Your task to perform on an android device: allow cookies in the chrome app Image 0: 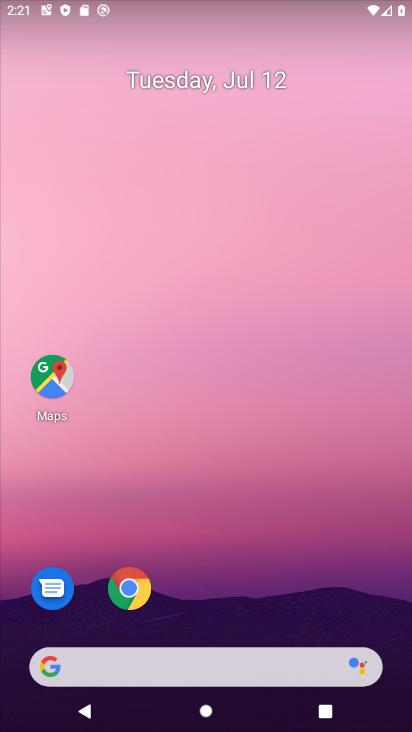
Step 0: click (126, 591)
Your task to perform on an android device: allow cookies in the chrome app Image 1: 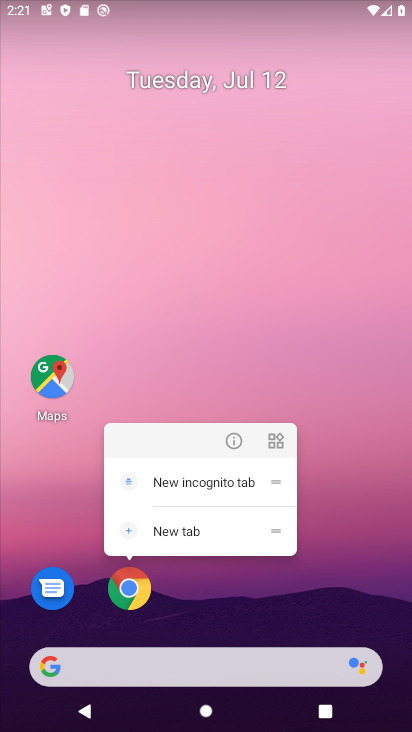
Step 1: click (141, 597)
Your task to perform on an android device: allow cookies in the chrome app Image 2: 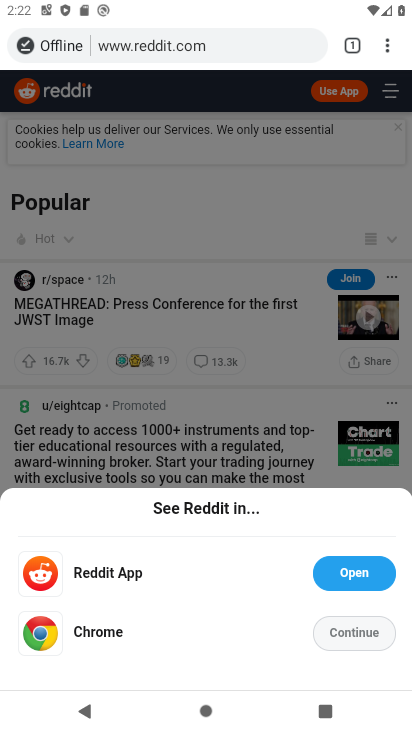
Step 2: drag from (385, 54) to (273, 511)
Your task to perform on an android device: allow cookies in the chrome app Image 3: 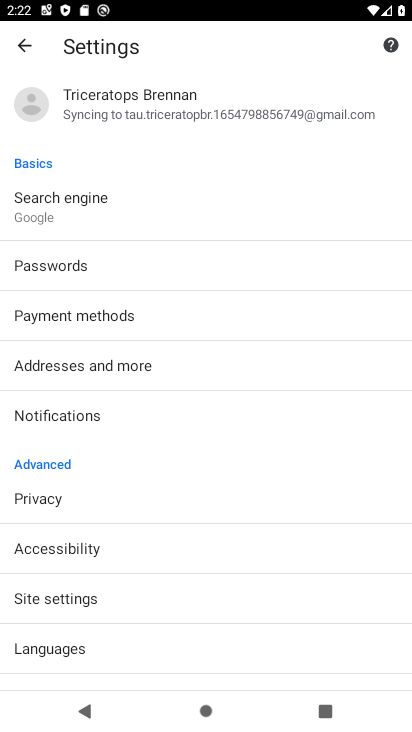
Step 3: click (73, 606)
Your task to perform on an android device: allow cookies in the chrome app Image 4: 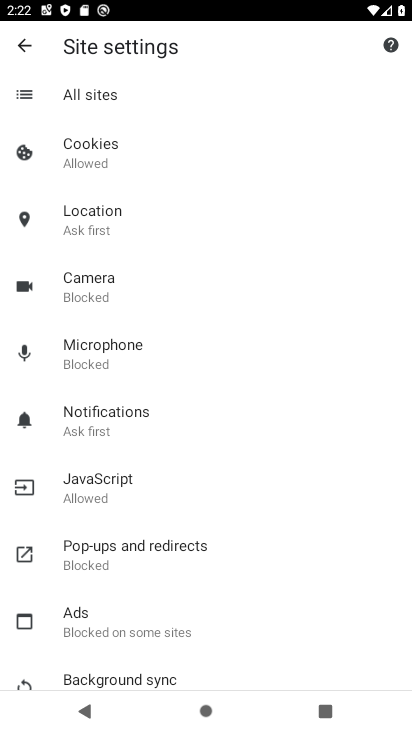
Step 4: click (98, 154)
Your task to perform on an android device: allow cookies in the chrome app Image 5: 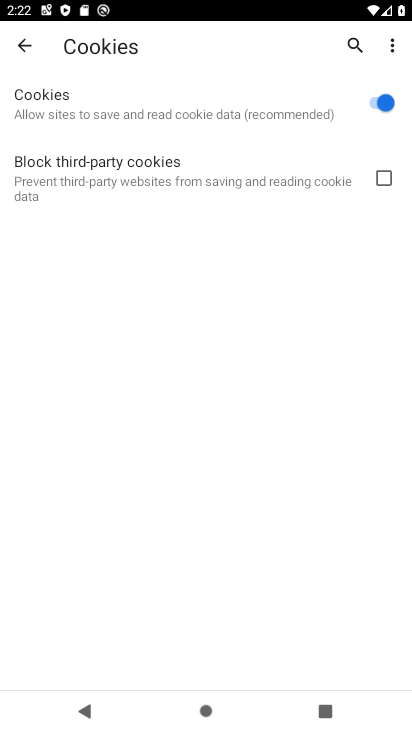
Step 5: task complete